Your task to perform on an android device: Search for Mexican restaurants on Maps Image 0: 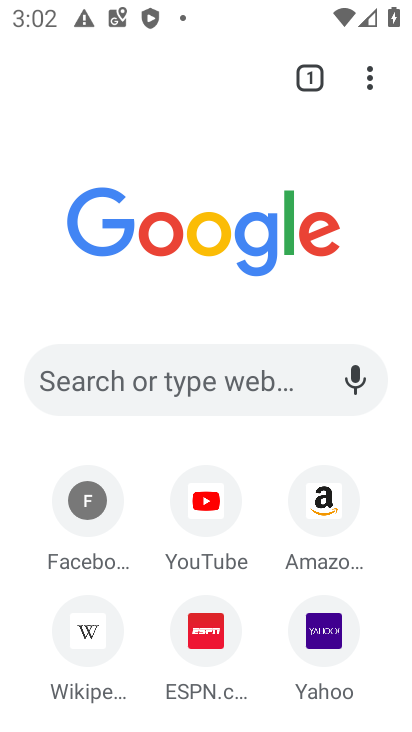
Step 0: press home button
Your task to perform on an android device: Search for Mexican restaurants on Maps Image 1: 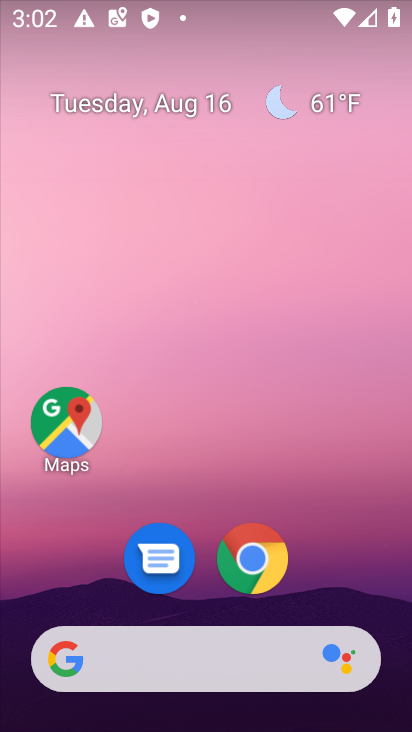
Step 1: click (65, 423)
Your task to perform on an android device: Search for Mexican restaurants on Maps Image 2: 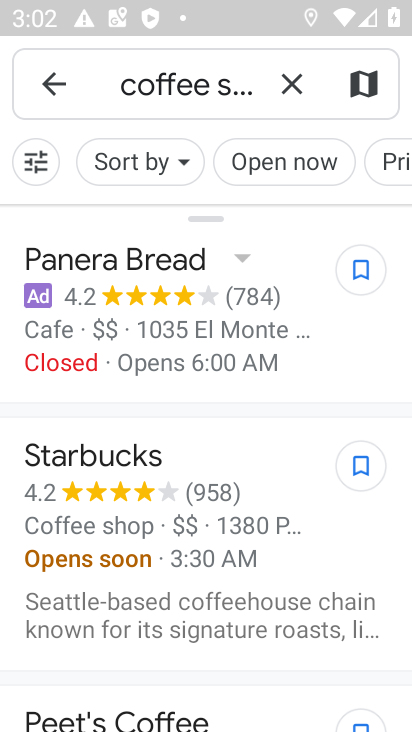
Step 2: click (293, 80)
Your task to perform on an android device: Search for Mexican restaurants on Maps Image 3: 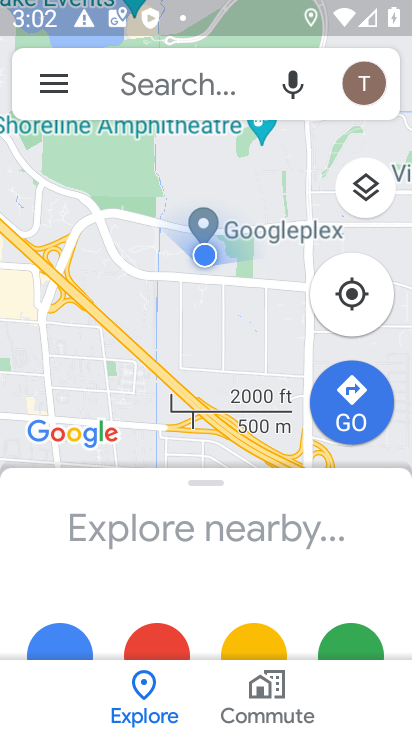
Step 3: click (149, 80)
Your task to perform on an android device: Search for Mexican restaurants on Maps Image 4: 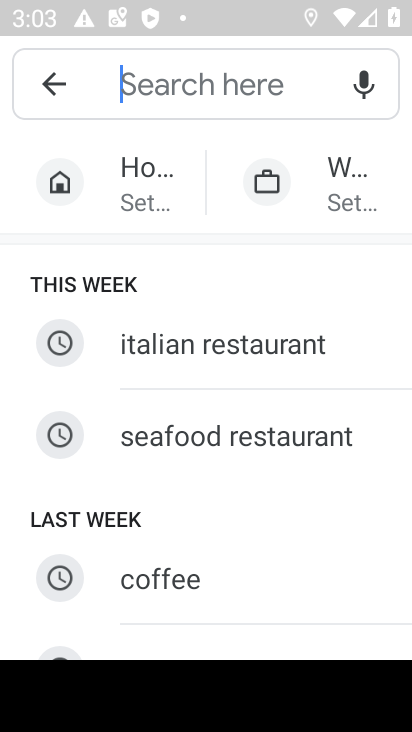
Step 4: type "mexican restaurants"
Your task to perform on an android device: Search for Mexican restaurants on Maps Image 5: 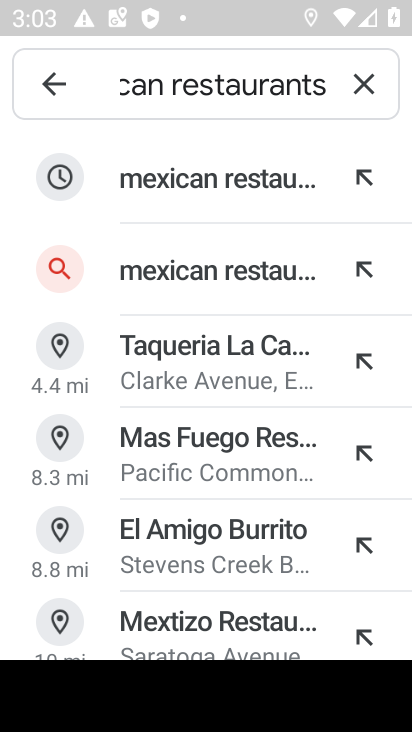
Step 5: click (229, 186)
Your task to perform on an android device: Search for Mexican restaurants on Maps Image 6: 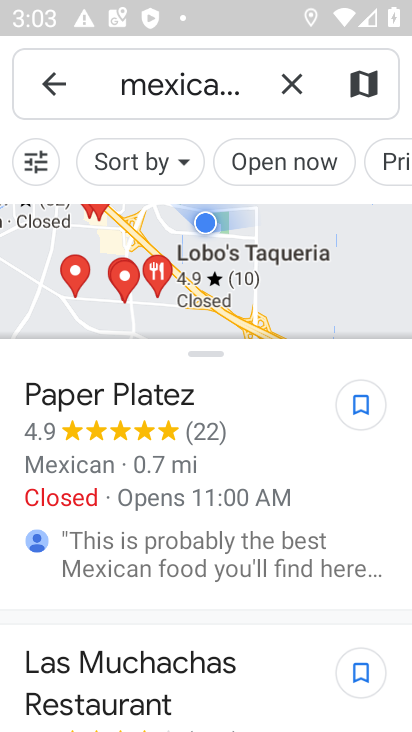
Step 6: task complete